Your task to perform on an android device: turn off translation in the chrome app Image 0: 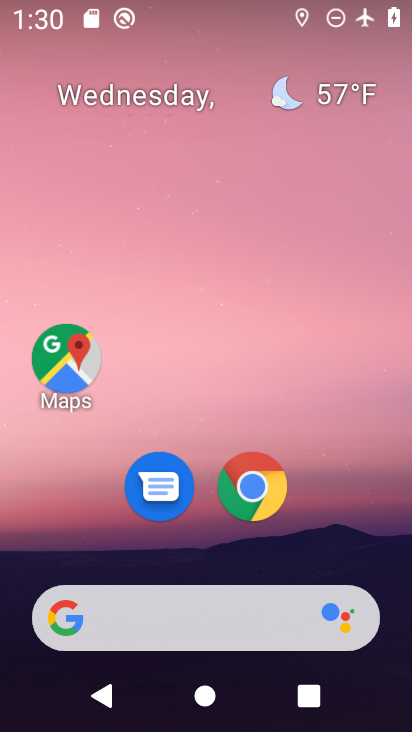
Step 0: press home button
Your task to perform on an android device: turn off translation in the chrome app Image 1: 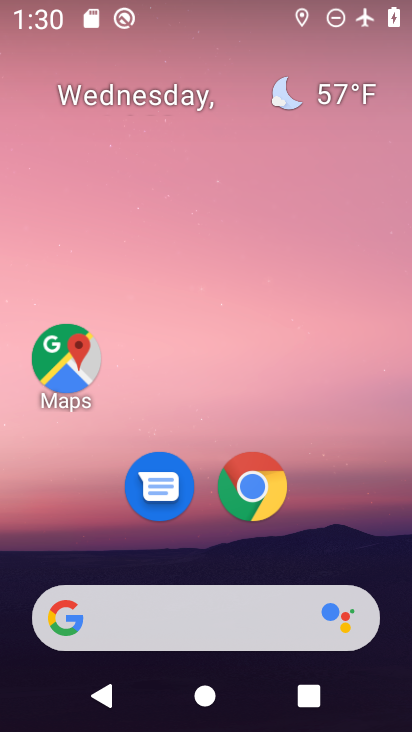
Step 1: drag from (362, 519) to (376, 158)
Your task to perform on an android device: turn off translation in the chrome app Image 2: 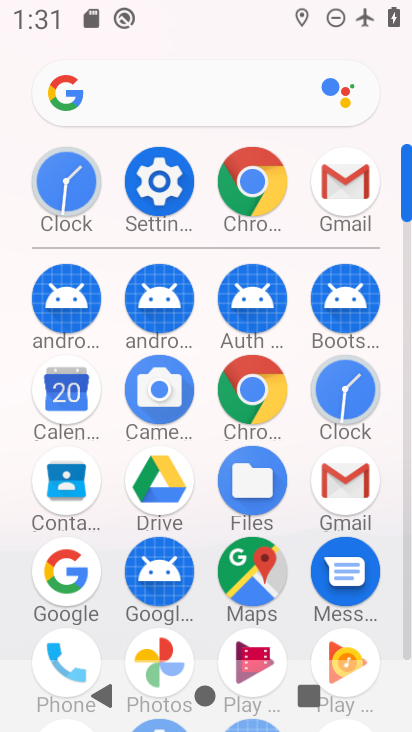
Step 2: click (234, 397)
Your task to perform on an android device: turn off translation in the chrome app Image 3: 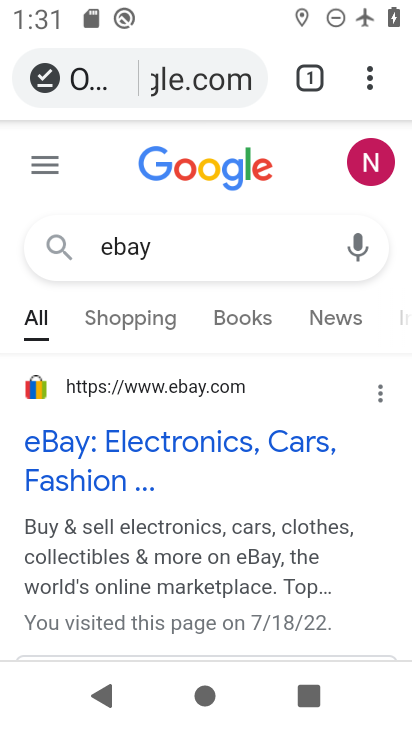
Step 3: click (366, 81)
Your task to perform on an android device: turn off translation in the chrome app Image 4: 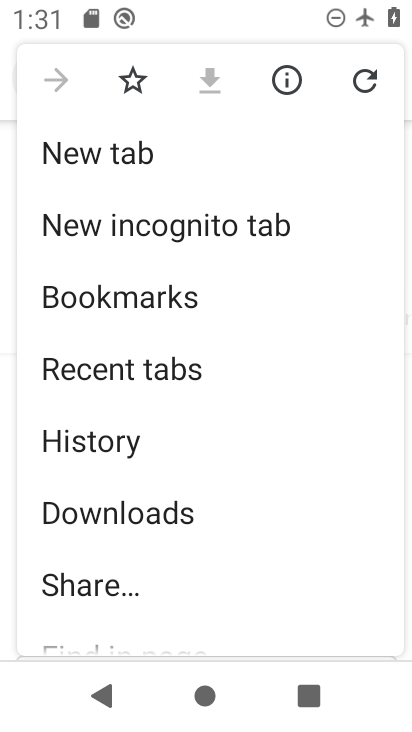
Step 4: drag from (338, 408) to (360, 320)
Your task to perform on an android device: turn off translation in the chrome app Image 5: 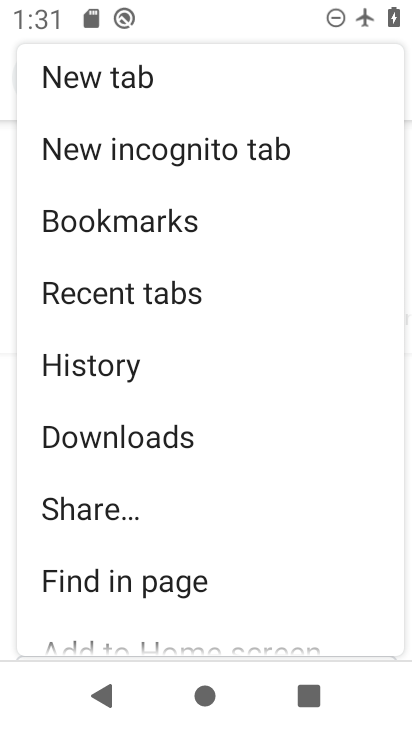
Step 5: drag from (358, 433) to (352, 342)
Your task to perform on an android device: turn off translation in the chrome app Image 6: 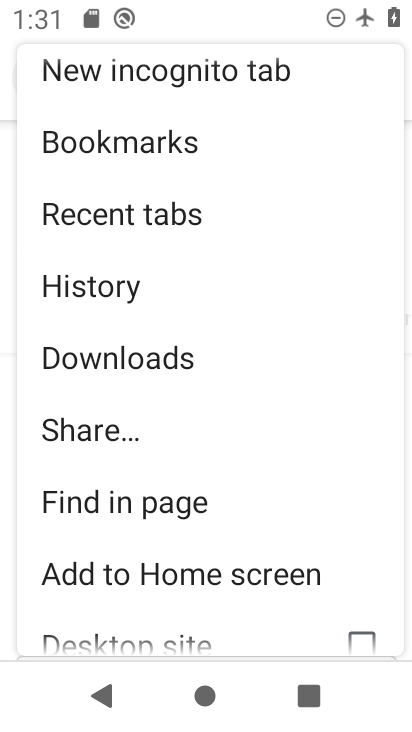
Step 6: drag from (348, 557) to (345, 416)
Your task to perform on an android device: turn off translation in the chrome app Image 7: 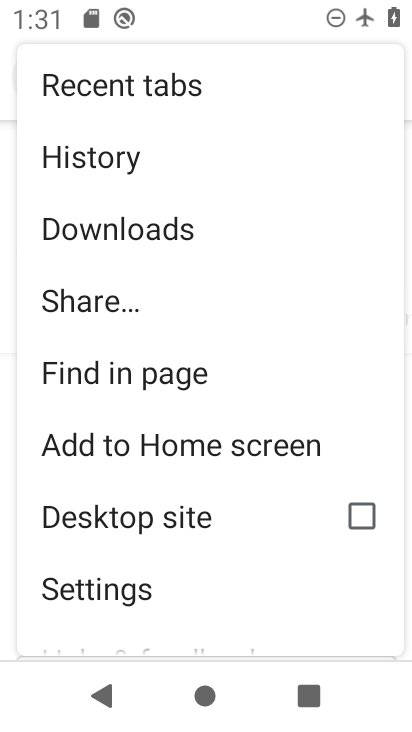
Step 7: drag from (271, 602) to (276, 460)
Your task to perform on an android device: turn off translation in the chrome app Image 8: 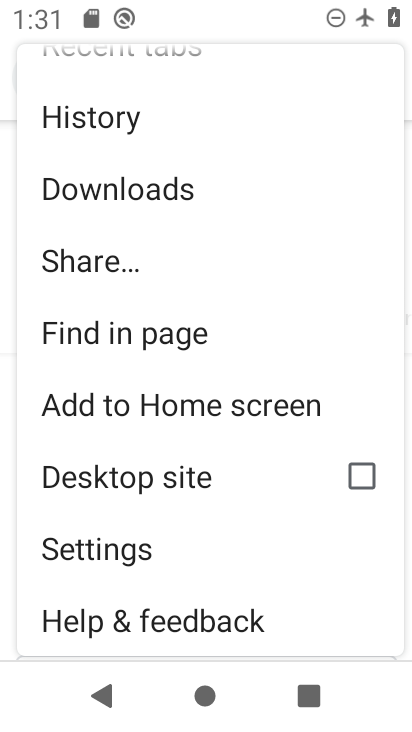
Step 8: click (220, 561)
Your task to perform on an android device: turn off translation in the chrome app Image 9: 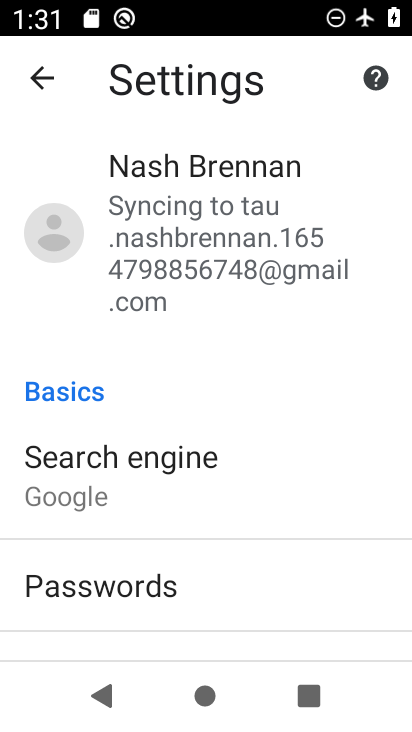
Step 9: drag from (279, 579) to (303, 466)
Your task to perform on an android device: turn off translation in the chrome app Image 10: 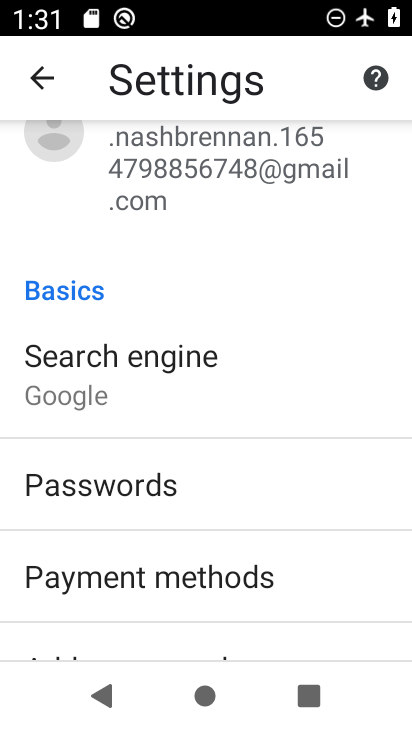
Step 10: drag from (323, 543) to (335, 360)
Your task to perform on an android device: turn off translation in the chrome app Image 11: 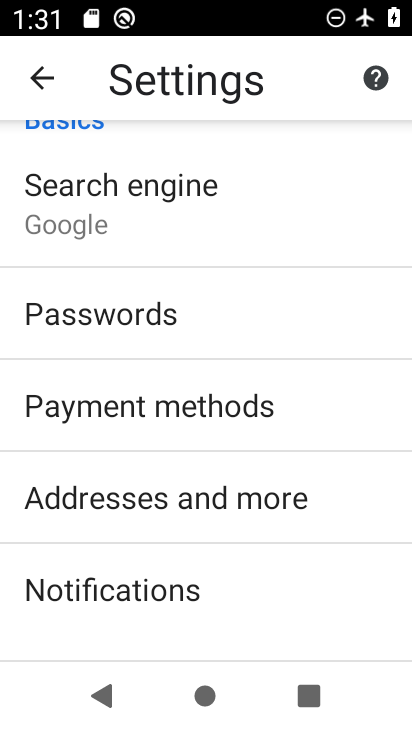
Step 11: drag from (361, 567) to (361, 390)
Your task to perform on an android device: turn off translation in the chrome app Image 12: 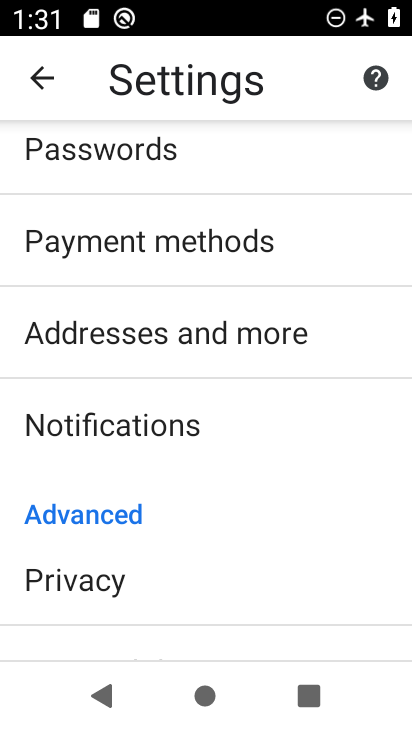
Step 12: drag from (341, 543) to (349, 393)
Your task to perform on an android device: turn off translation in the chrome app Image 13: 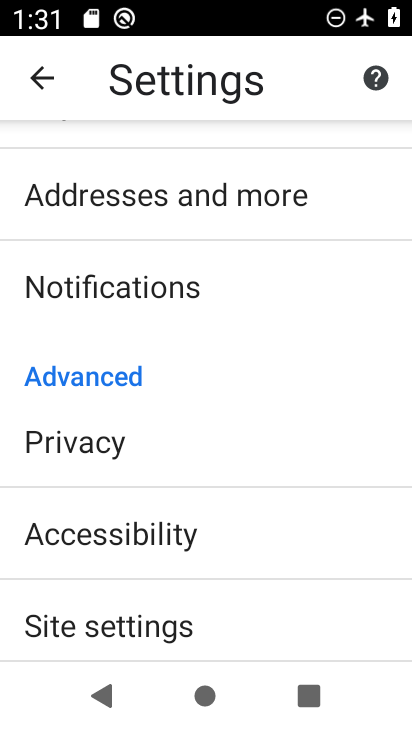
Step 13: drag from (331, 547) to (337, 417)
Your task to perform on an android device: turn off translation in the chrome app Image 14: 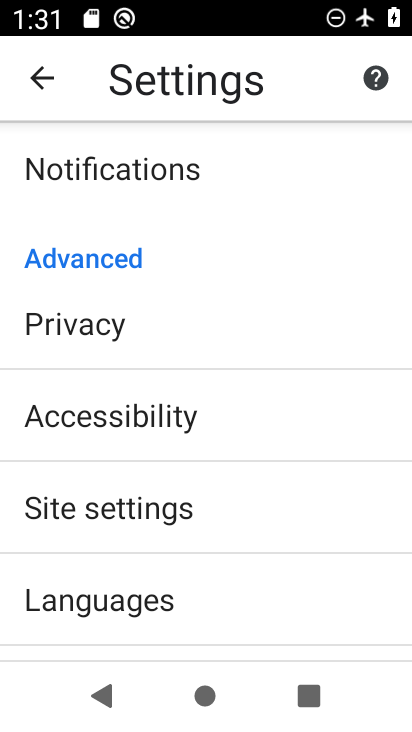
Step 14: drag from (325, 537) to (325, 439)
Your task to perform on an android device: turn off translation in the chrome app Image 15: 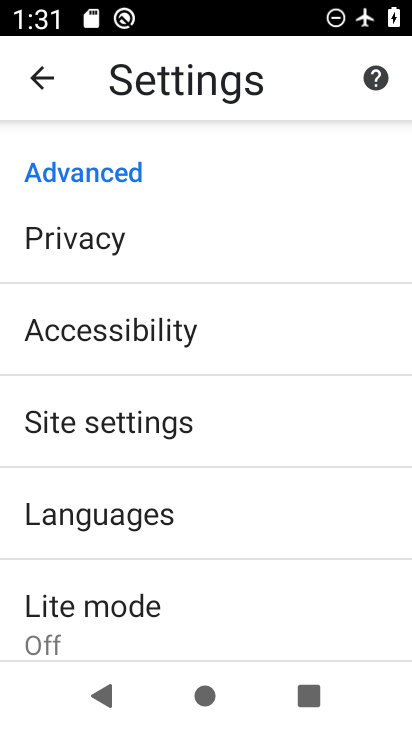
Step 15: click (270, 513)
Your task to perform on an android device: turn off translation in the chrome app Image 16: 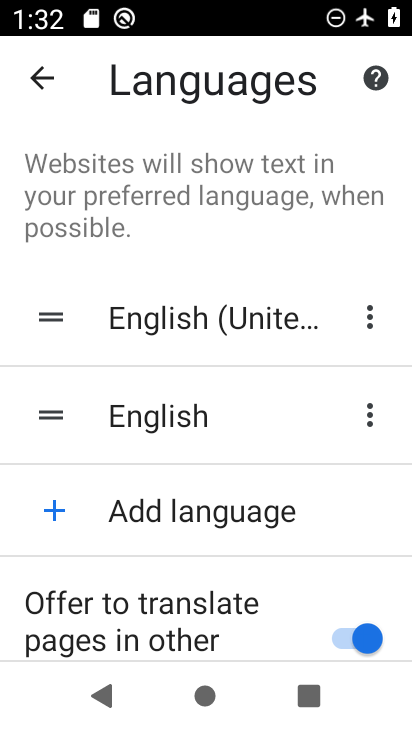
Step 16: drag from (280, 603) to (285, 485)
Your task to perform on an android device: turn off translation in the chrome app Image 17: 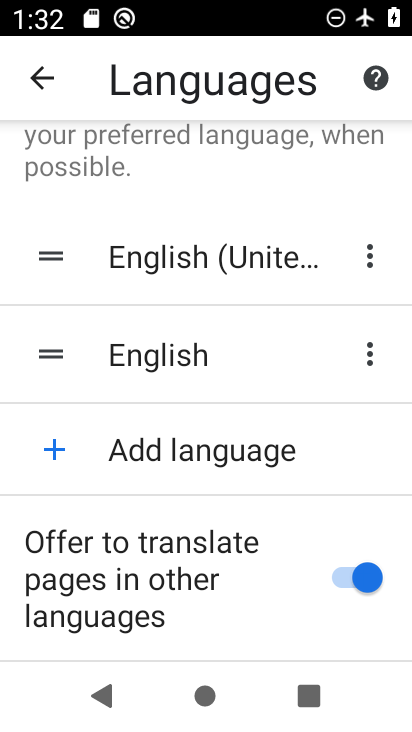
Step 17: click (354, 575)
Your task to perform on an android device: turn off translation in the chrome app Image 18: 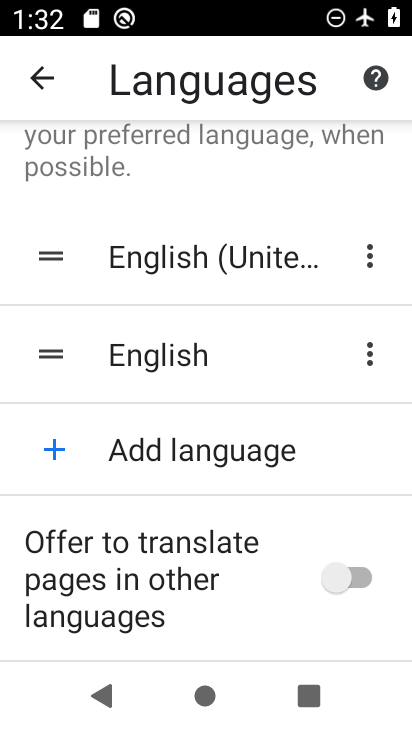
Step 18: task complete